Your task to perform on an android device: Search for seafood restaurants on Google Maps Image 0: 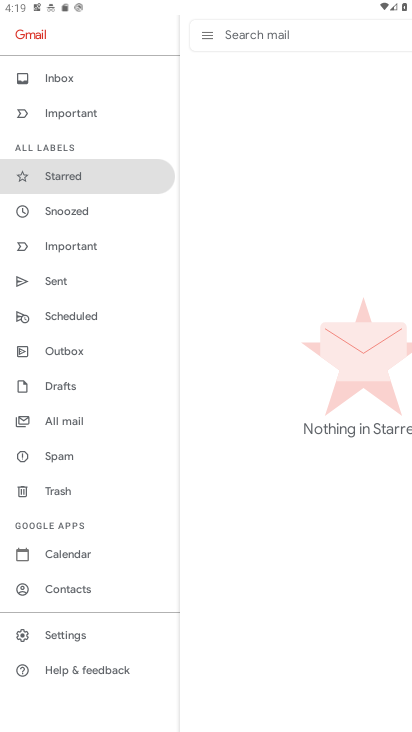
Step 0: press home button
Your task to perform on an android device: Search for seafood restaurants on Google Maps Image 1: 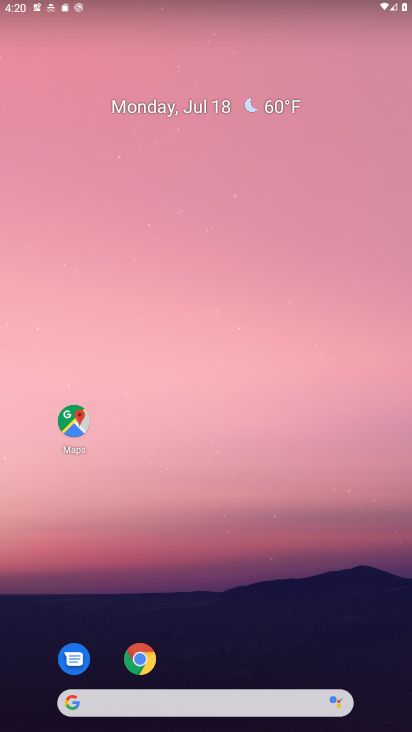
Step 1: drag from (213, 709) to (383, 39)
Your task to perform on an android device: Search for seafood restaurants on Google Maps Image 2: 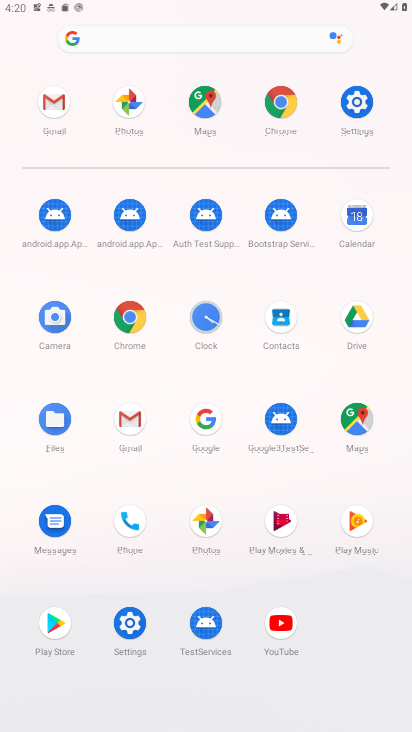
Step 2: click (356, 414)
Your task to perform on an android device: Search for seafood restaurants on Google Maps Image 3: 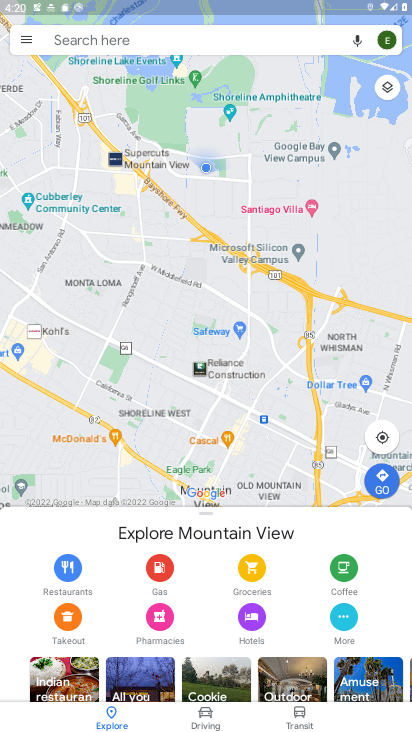
Step 3: click (203, 41)
Your task to perform on an android device: Search for seafood restaurants on Google Maps Image 4: 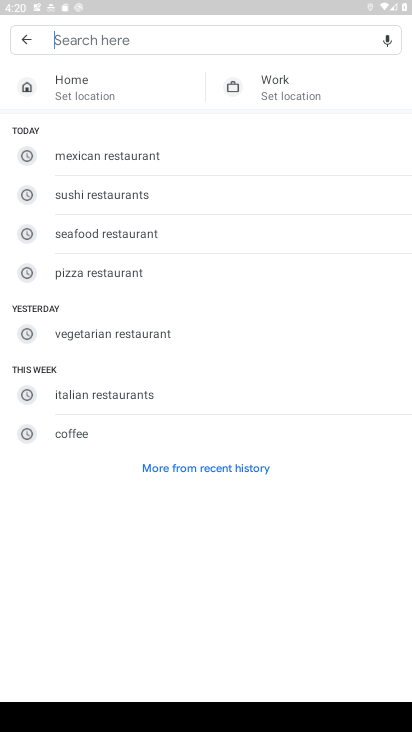
Step 4: click (195, 234)
Your task to perform on an android device: Search for seafood restaurants on Google Maps Image 5: 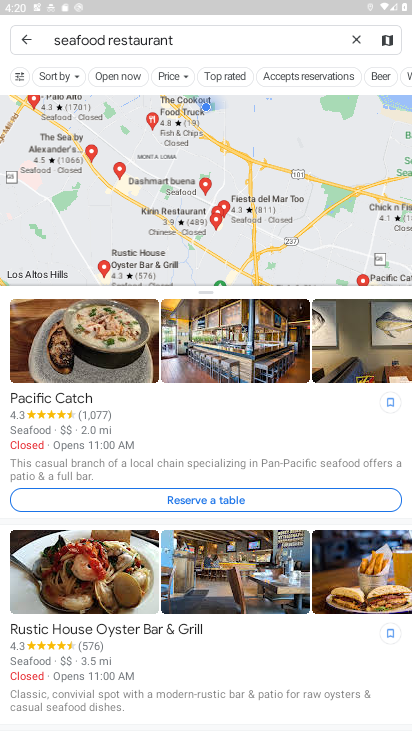
Step 5: task complete